Your task to perform on an android device: empty trash in google photos Image 0: 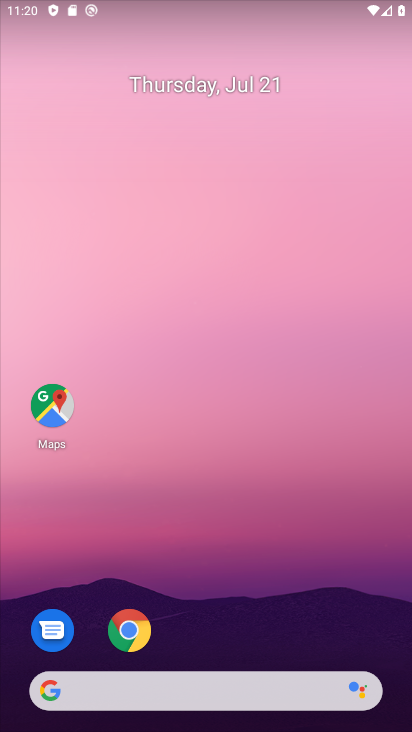
Step 0: press home button
Your task to perform on an android device: empty trash in google photos Image 1: 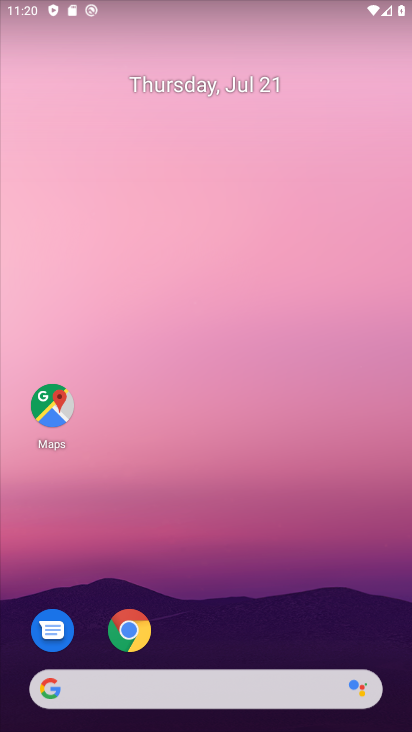
Step 1: drag from (249, 622) to (215, 155)
Your task to perform on an android device: empty trash in google photos Image 2: 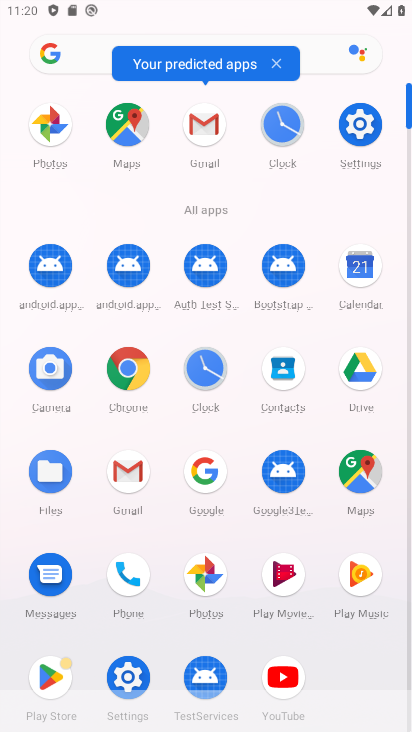
Step 2: click (206, 575)
Your task to perform on an android device: empty trash in google photos Image 3: 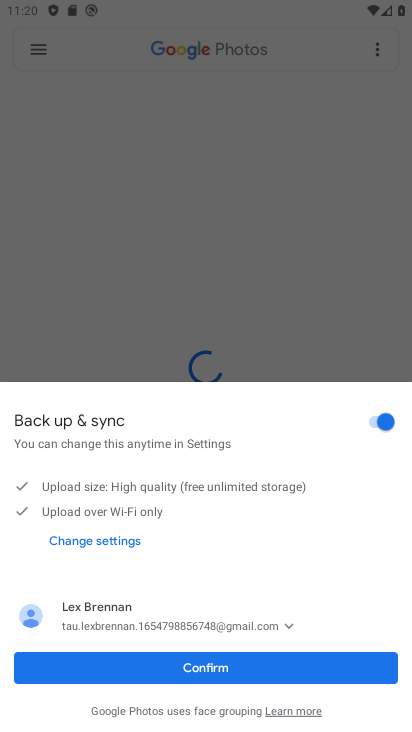
Step 3: click (233, 677)
Your task to perform on an android device: empty trash in google photos Image 4: 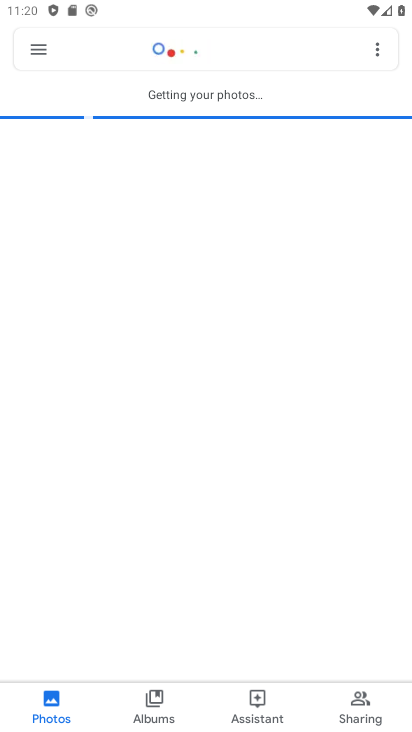
Step 4: click (375, 42)
Your task to perform on an android device: empty trash in google photos Image 5: 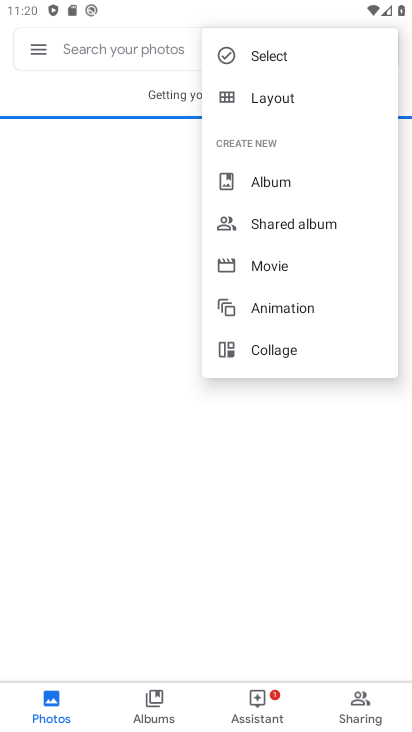
Step 5: click (31, 47)
Your task to perform on an android device: empty trash in google photos Image 6: 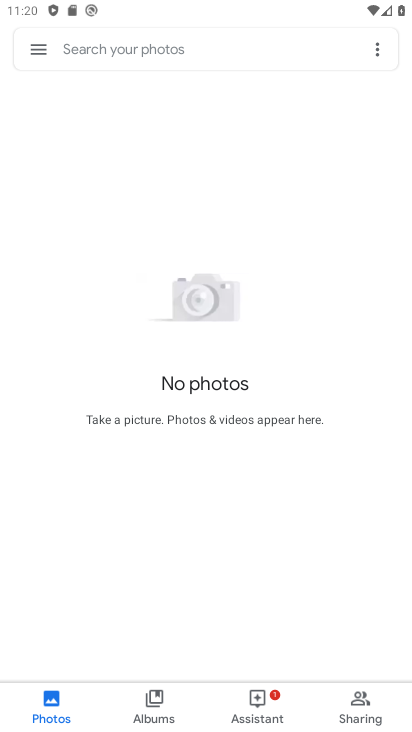
Step 6: click (41, 49)
Your task to perform on an android device: empty trash in google photos Image 7: 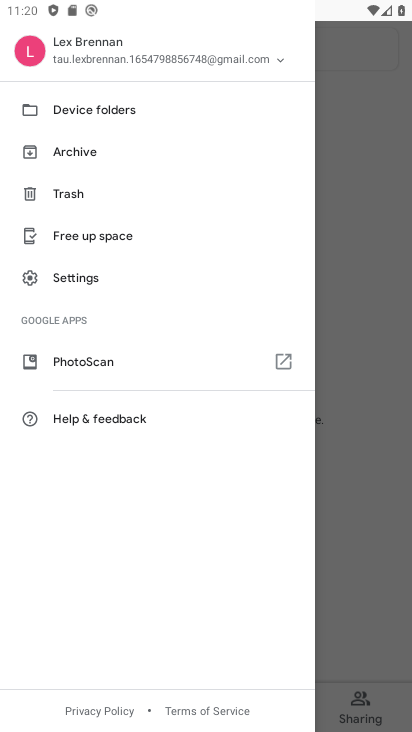
Step 7: click (93, 196)
Your task to perform on an android device: empty trash in google photos Image 8: 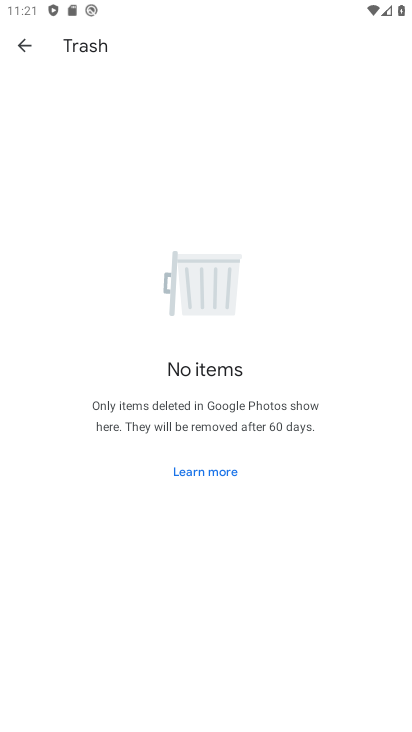
Step 8: task complete